Your task to perform on an android device: Search for energizer triple a on amazon.com, select the first entry, add it to the cart, then select checkout. Image 0: 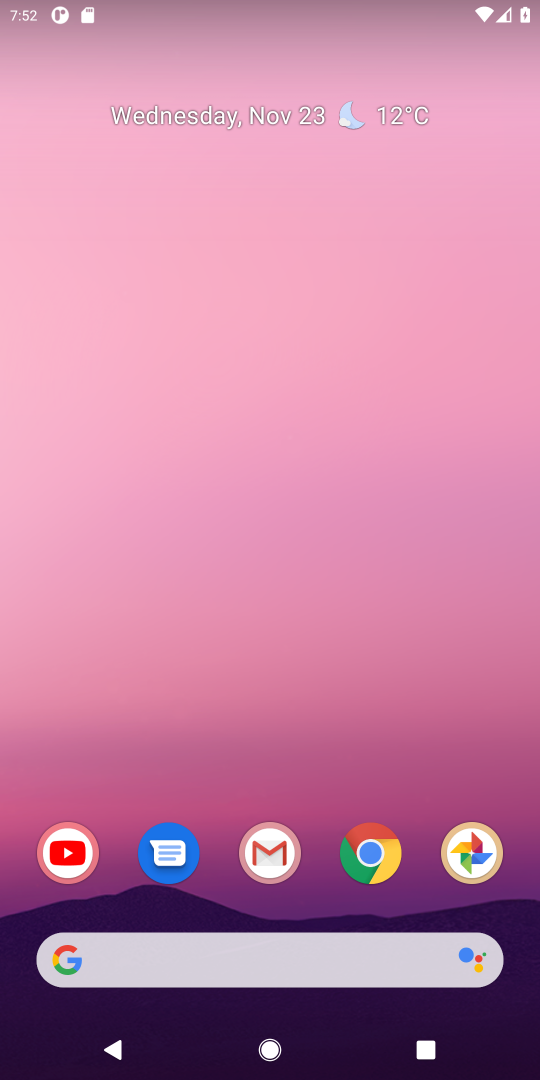
Step 0: click (372, 854)
Your task to perform on an android device: Search for energizer triple a on amazon.com, select the first entry, add it to the cart, then select checkout. Image 1: 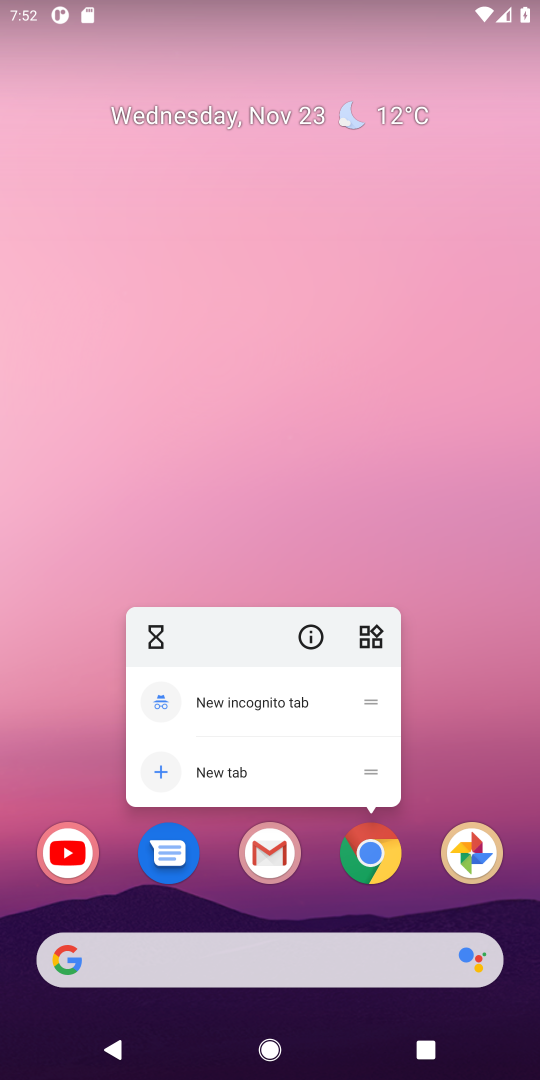
Step 1: click (373, 859)
Your task to perform on an android device: Search for energizer triple a on amazon.com, select the first entry, add it to the cart, then select checkout. Image 2: 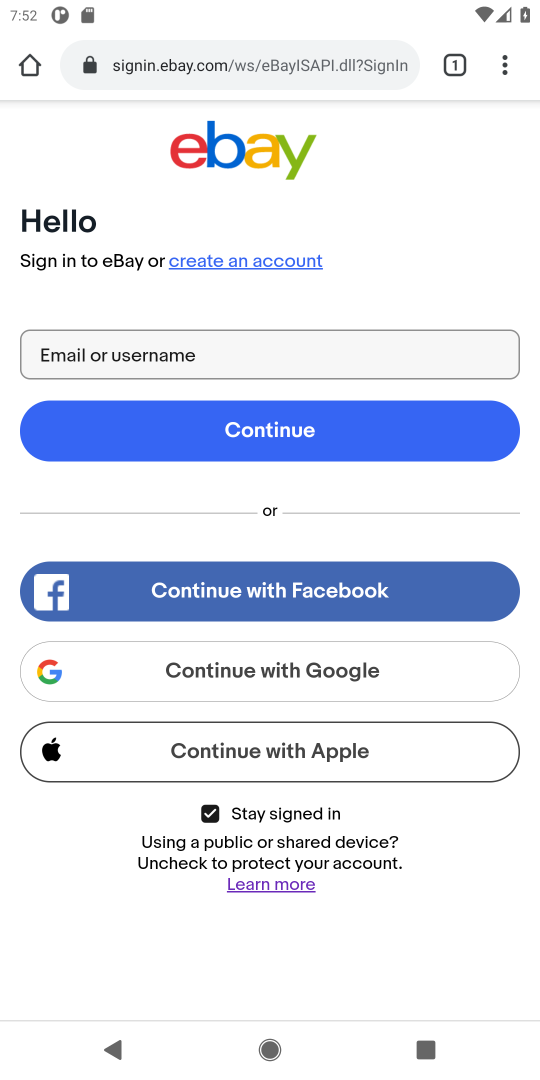
Step 2: click (203, 66)
Your task to perform on an android device: Search for energizer triple a on amazon.com, select the first entry, add it to the cart, then select checkout. Image 3: 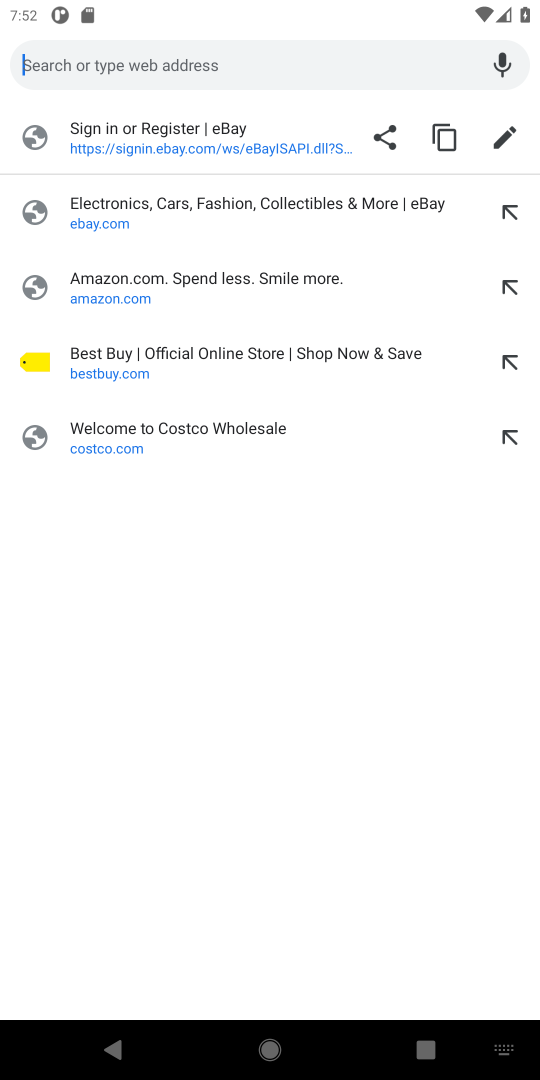
Step 3: click (106, 298)
Your task to perform on an android device: Search for energizer triple a on amazon.com, select the first entry, add it to the cart, then select checkout. Image 4: 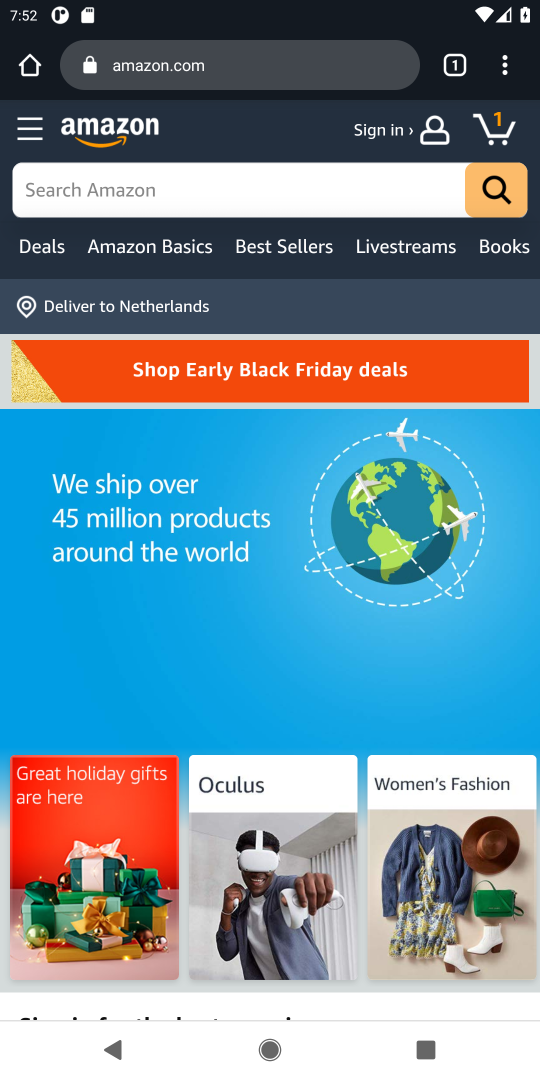
Step 4: click (126, 199)
Your task to perform on an android device: Search for energizer triple a on amazon.com, select the first entry, add it to the cart, then select checkout. Image 5: 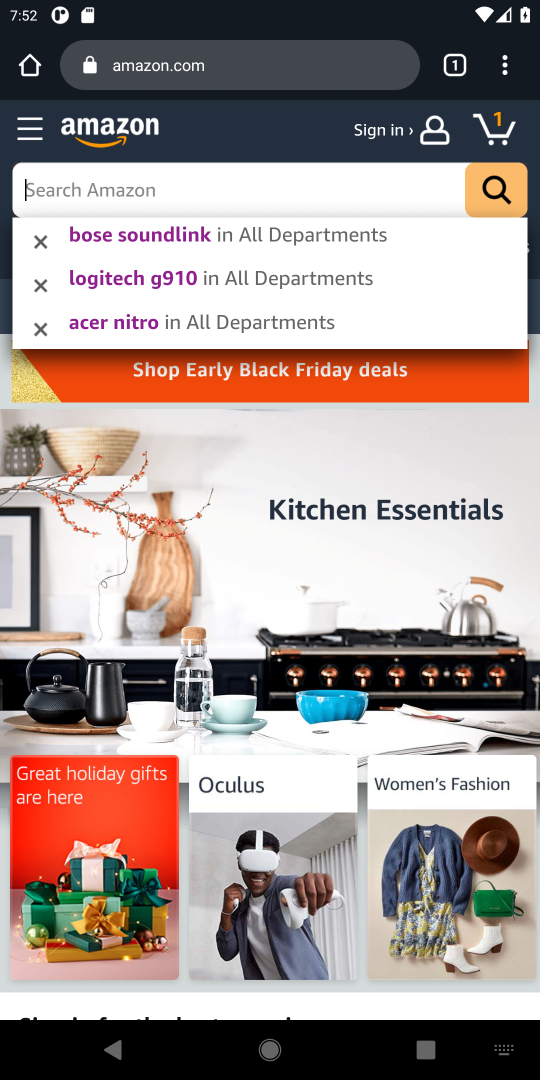
Step 5: type "energizer triple a"
Your task to perform on an android device: Search for energizer triple a on amazon.com, select the first entry, add it to the cart, then select checkout. Image 6: 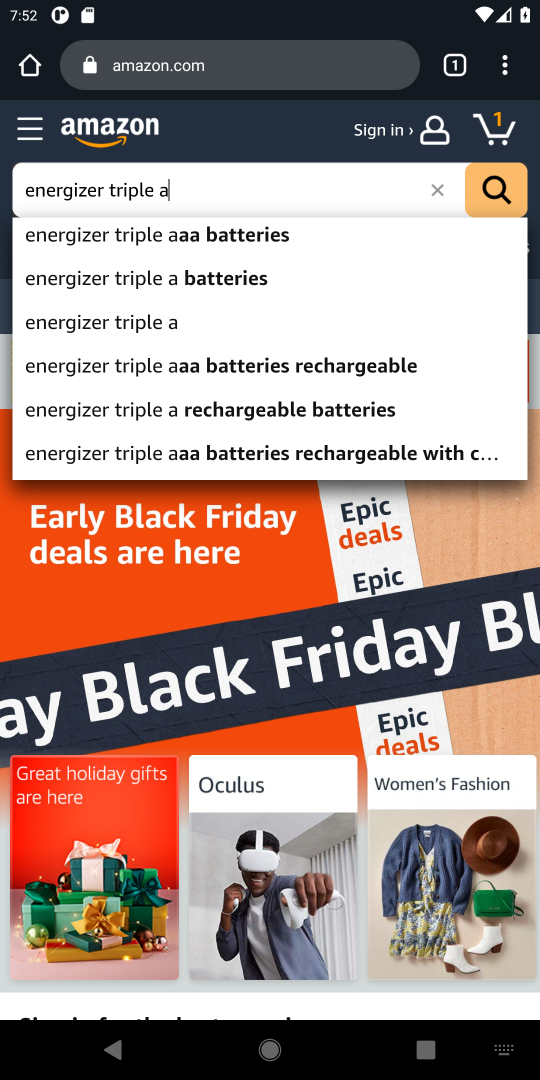
Step 6: click (136, 326)
Your task to perform on an android device: Search for energizer triple a on amazon.com, select the first entry, add it to the cart, then select checkout. Image 7: 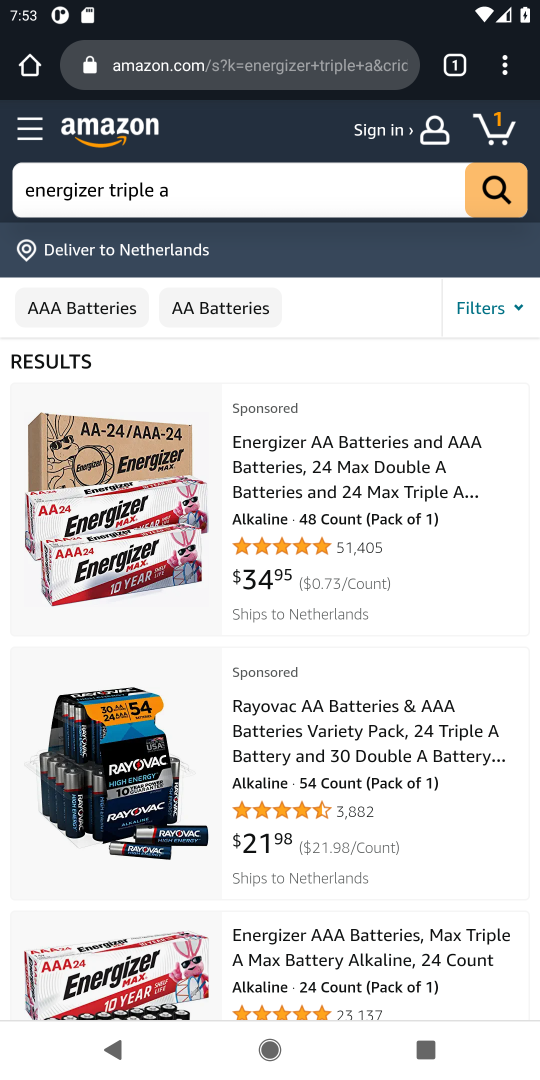
Step 7: click (85, 547)
Your task to perform on an android device: Search for energizer triple a on amazon.com, select the first entry, add it to the cart, then select checkout. Image 8: 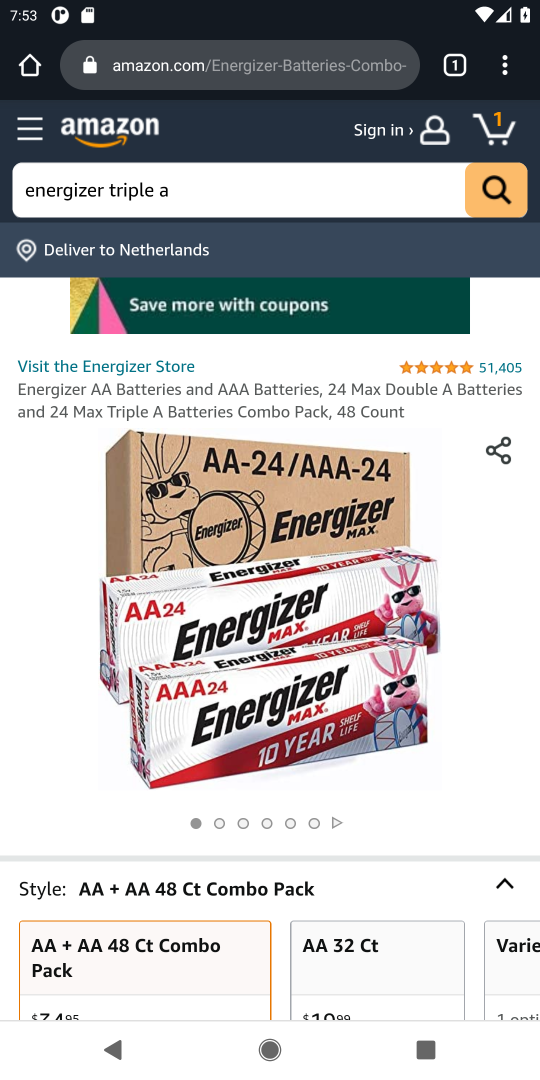
Step 8: drag from (212, 749) to (208, 304)
Your task to perform on an android device: Search for energizer triple a on amazon.com, select the first entry, add it to the cart, then select checkout. Image 9: 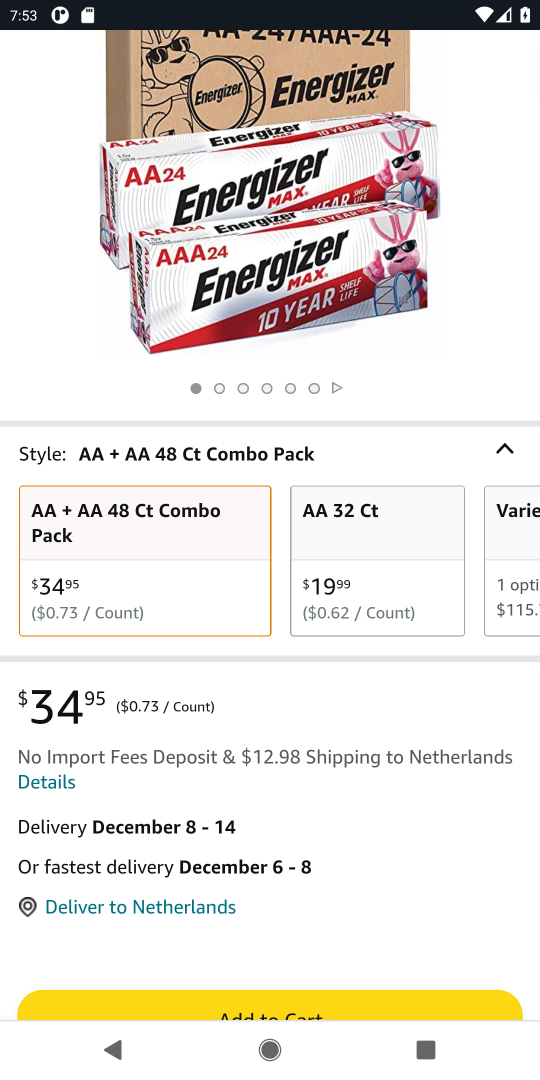
Step 9: drag from (134, 739) to (126, 492)
Your task to perform on an android device: Search for energizer triple a on amazon.com, select the first entry, add it to the cart, then select checkout. Image 10: 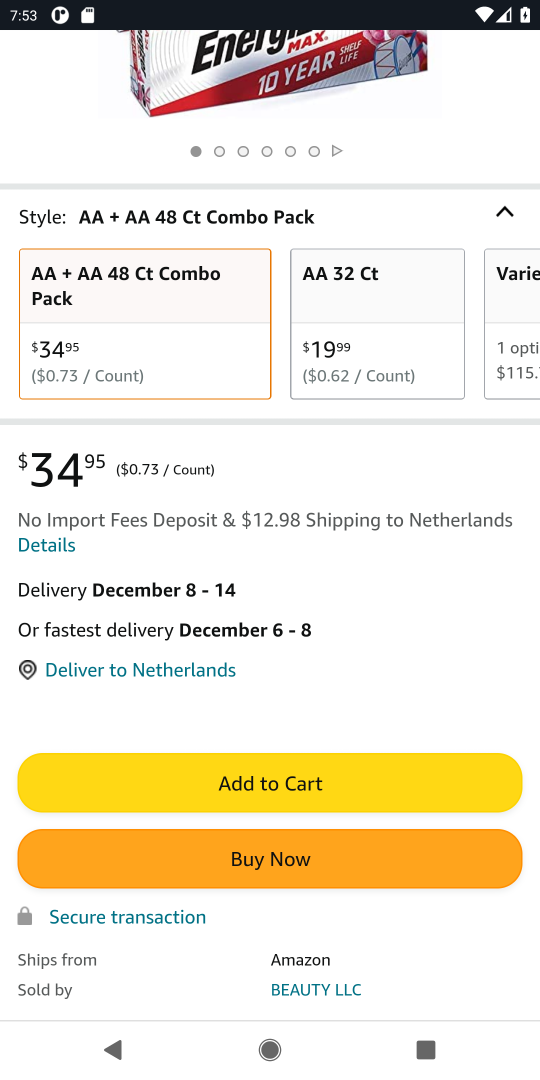
Step 10: click (226, 786)
Your task to perform on an android device: Search for energizer triple a on amazon.com, select the first entry, add it to the cart, then select checkout. Image 11: 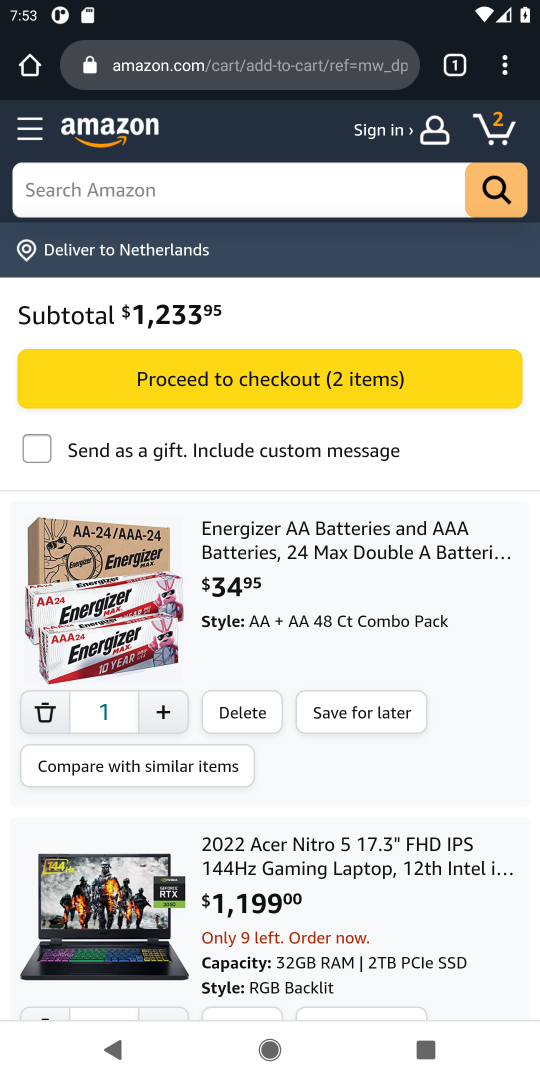
Step 11: click (225, 380)
Your task to perform on an android device: Search for energizer triple a on amazon.com, select the first entry, add it to the cart, then select checkout. Image 12: 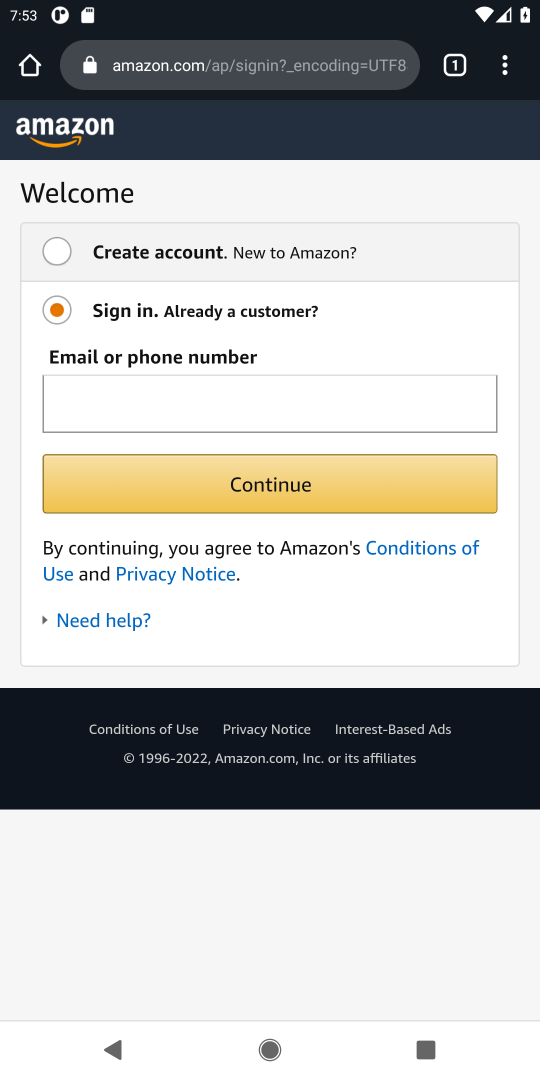
Step 12: task complete